Your task to perform on an android device: toggle data saver in the chrome app Image 0: 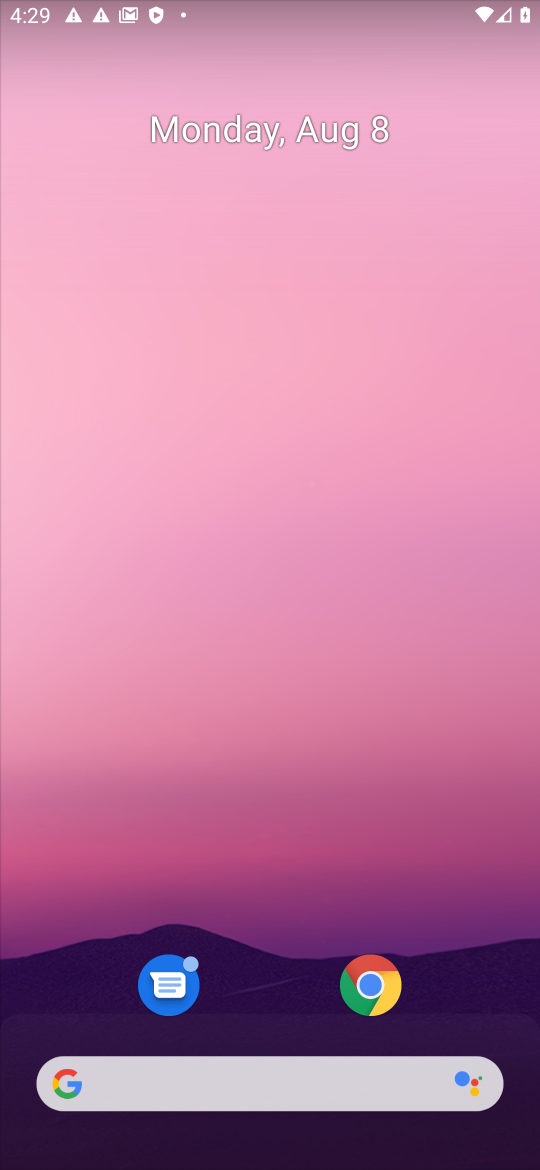
Step 0: drag from (318, 718) to (350, 69)
Your task to perform on an android device: toggle data saver in the chrome app Image 1: 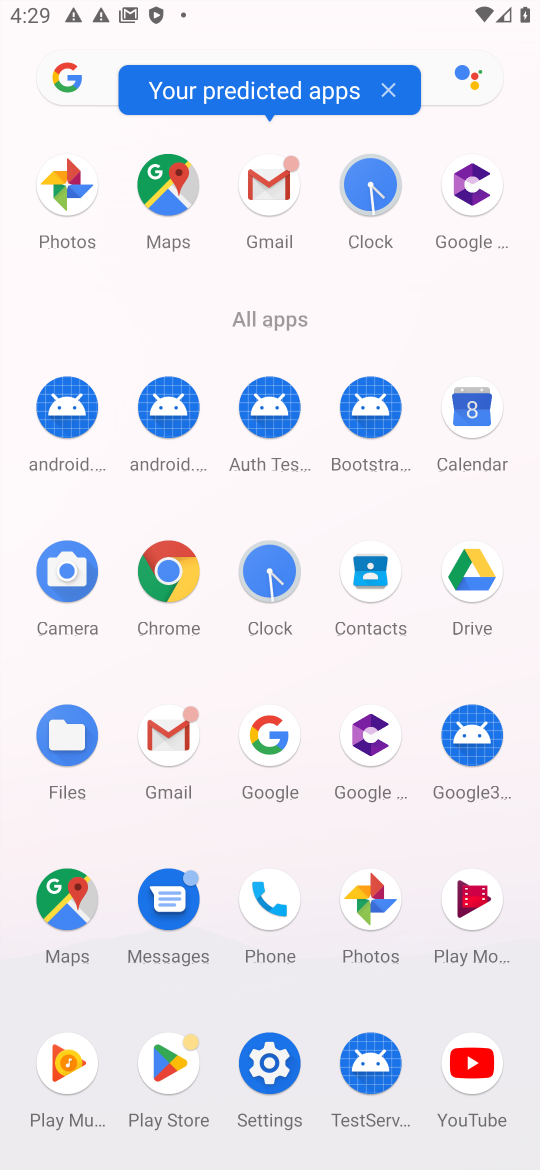
Step 1: click (162, 571)
Your task to perform on an android device: toggle data saver in the chrome app Image 2: 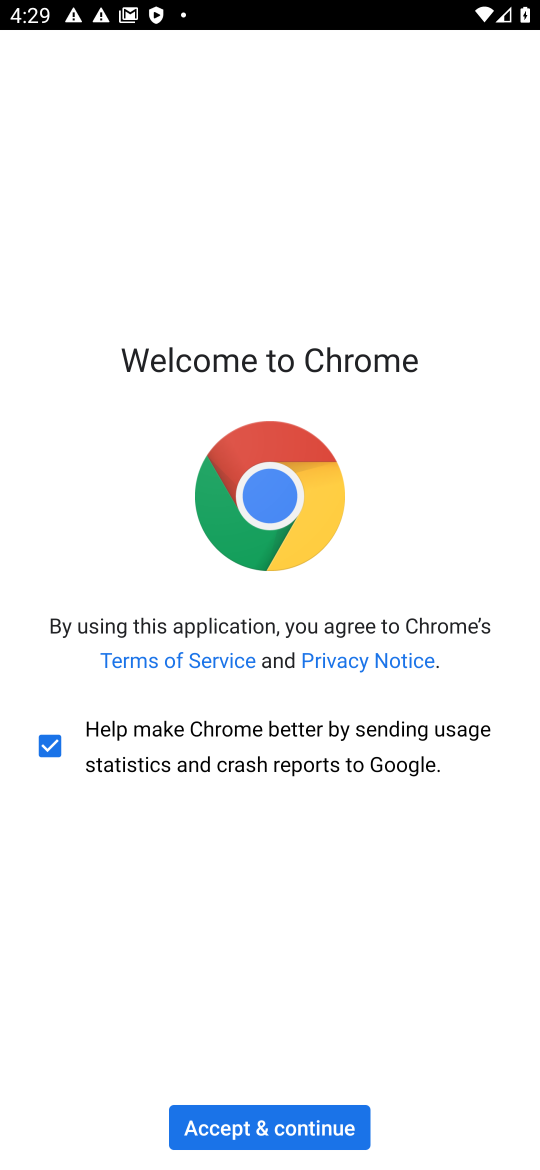
Step 2: click (288, 1124)
Your task to perform on an android device: toggle data saver in the chrome app Image 3: 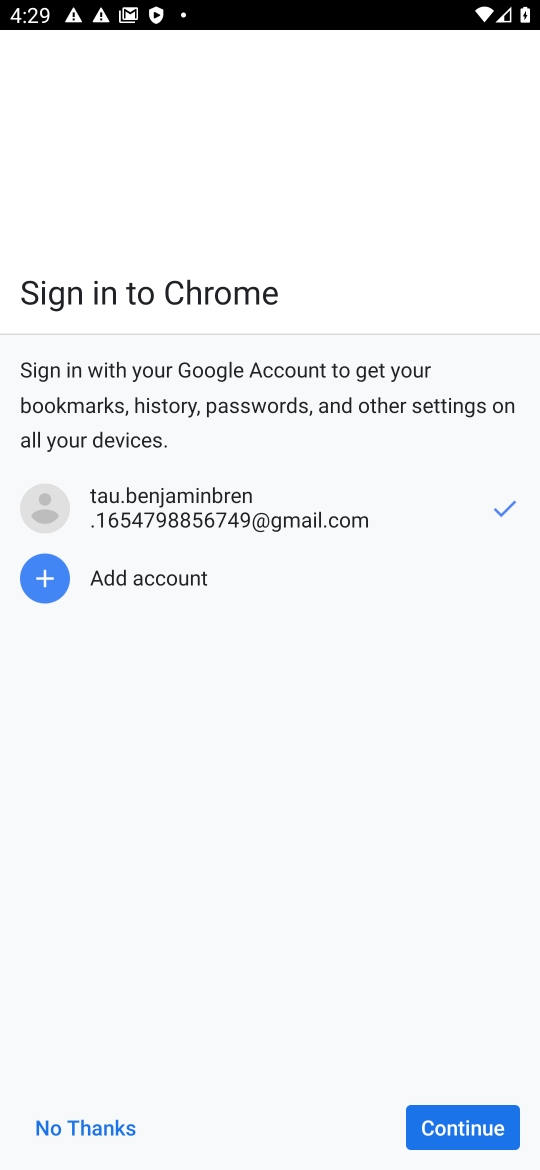
Step 3: click (482, 1124)
Your task to perform on an android device: toggle data saver in the chrome app Image 4: 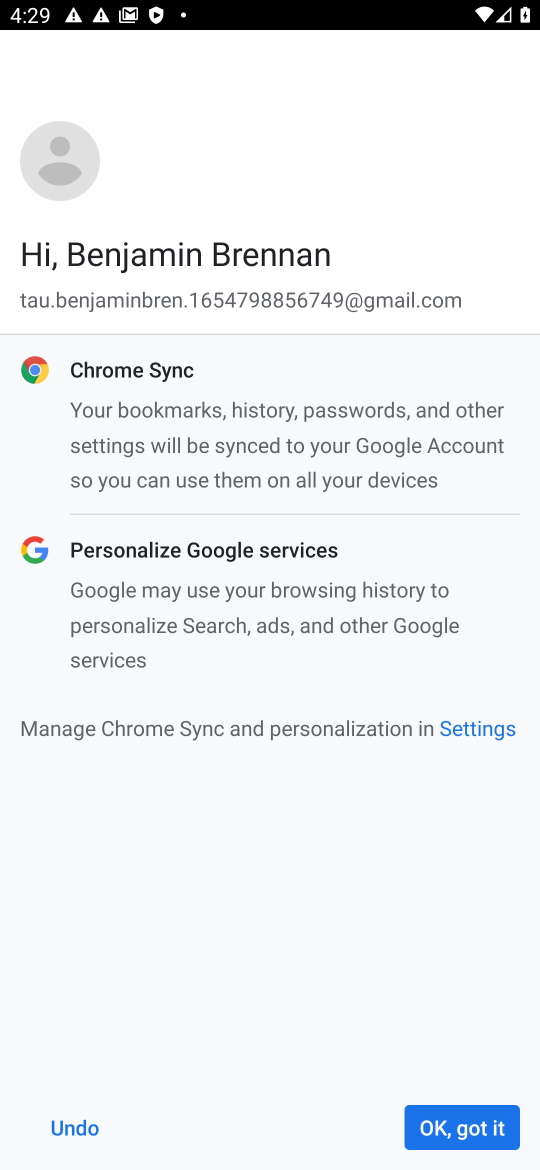
Step 4: click (482, 1124)
Your task to perform on an android device: toggle data saver in the chrome app Image 5: 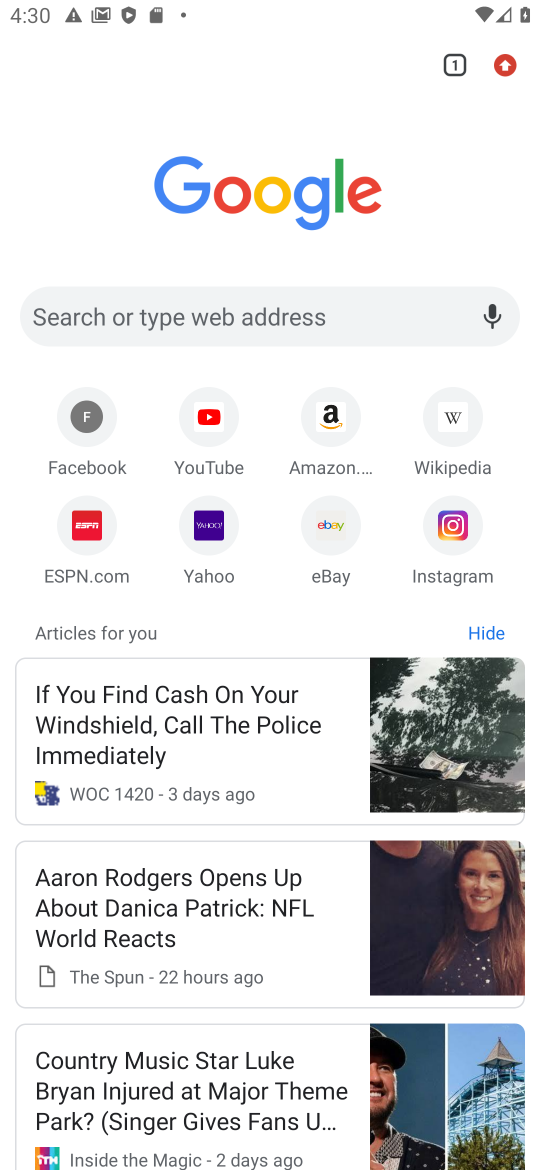
Step 5: task complete